Your task to perform on an android device: delete a single message in the gmail app Image 0: 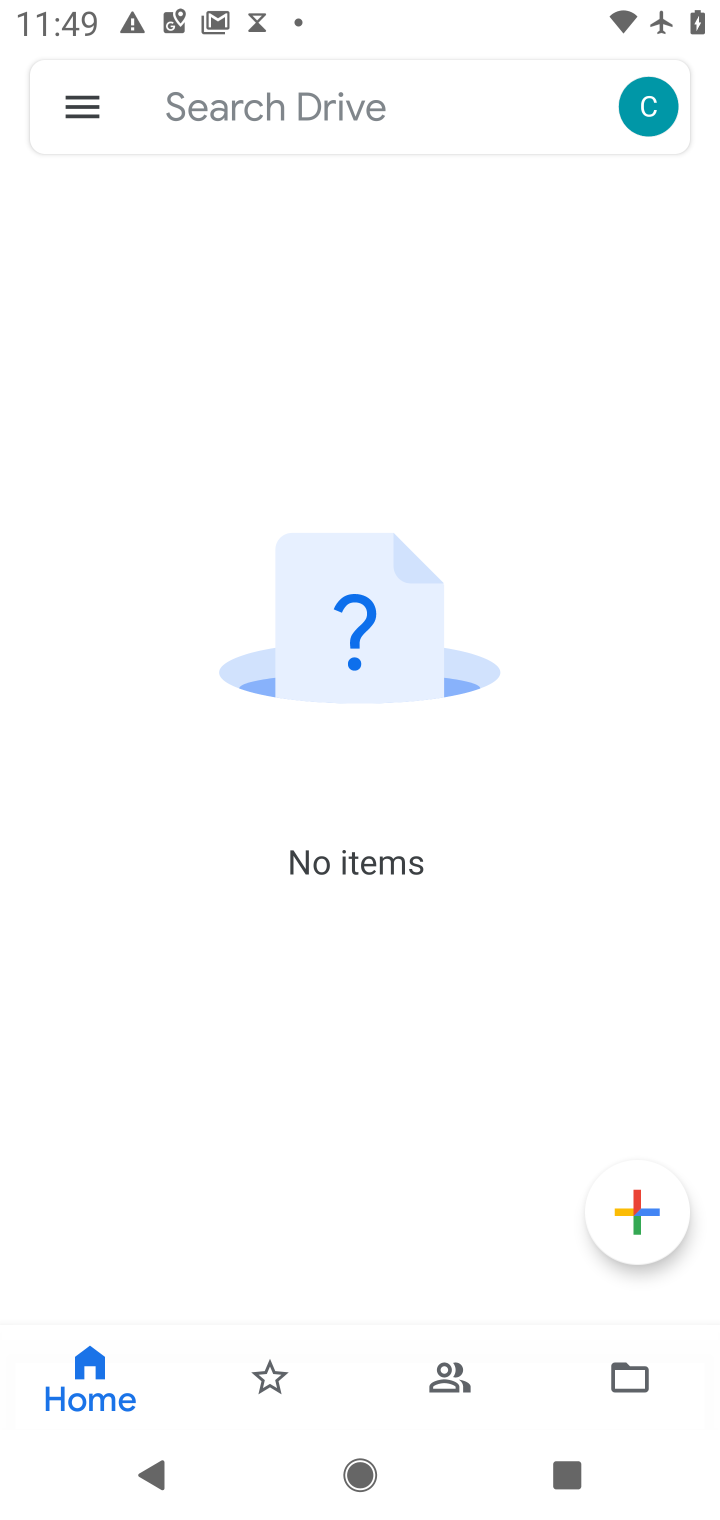
Step 0: press home button
Your task to perform on an android device: delete a single message in the gmail app Image 1: 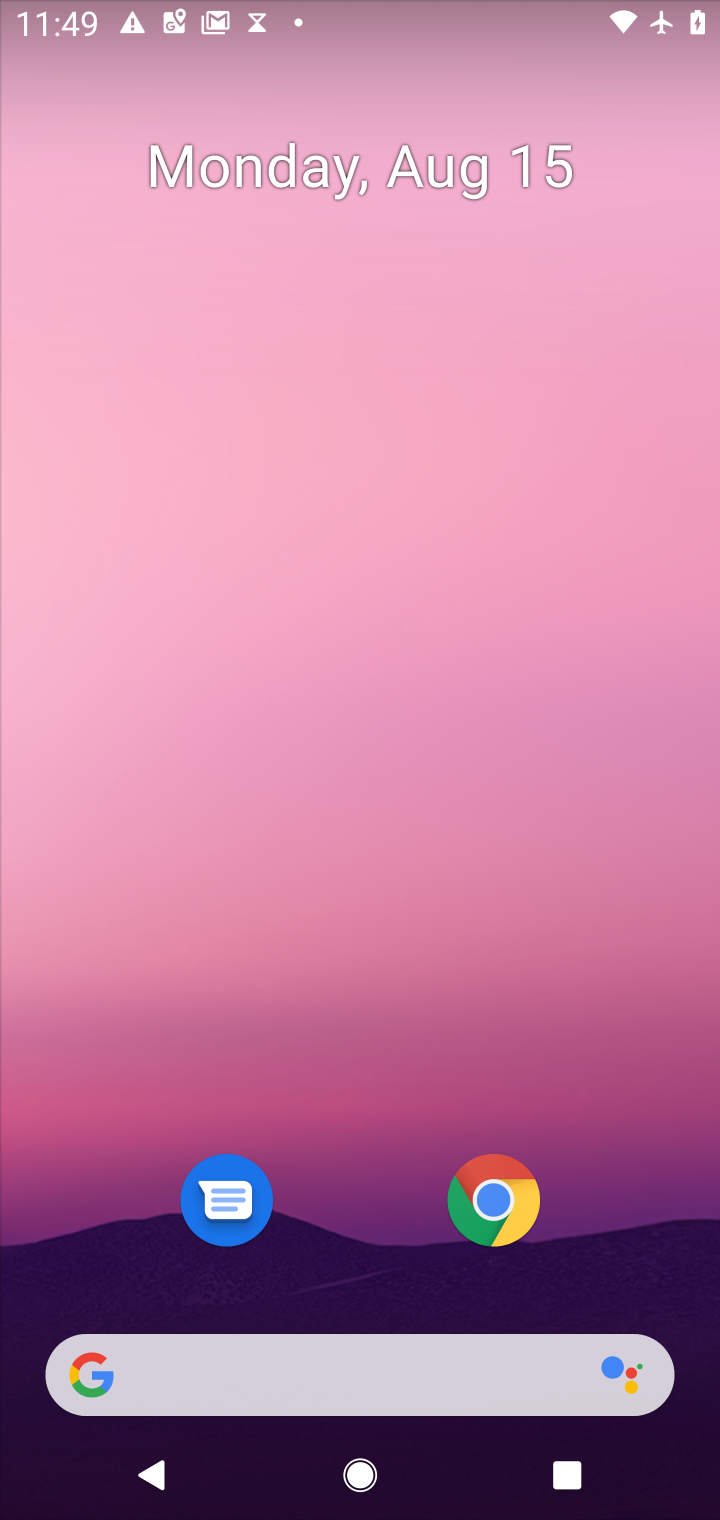
Step 1: drag from (312, 1062) to (299, 605)
Your task to perform on an android device: delete a single message in the gmail app Image 2: 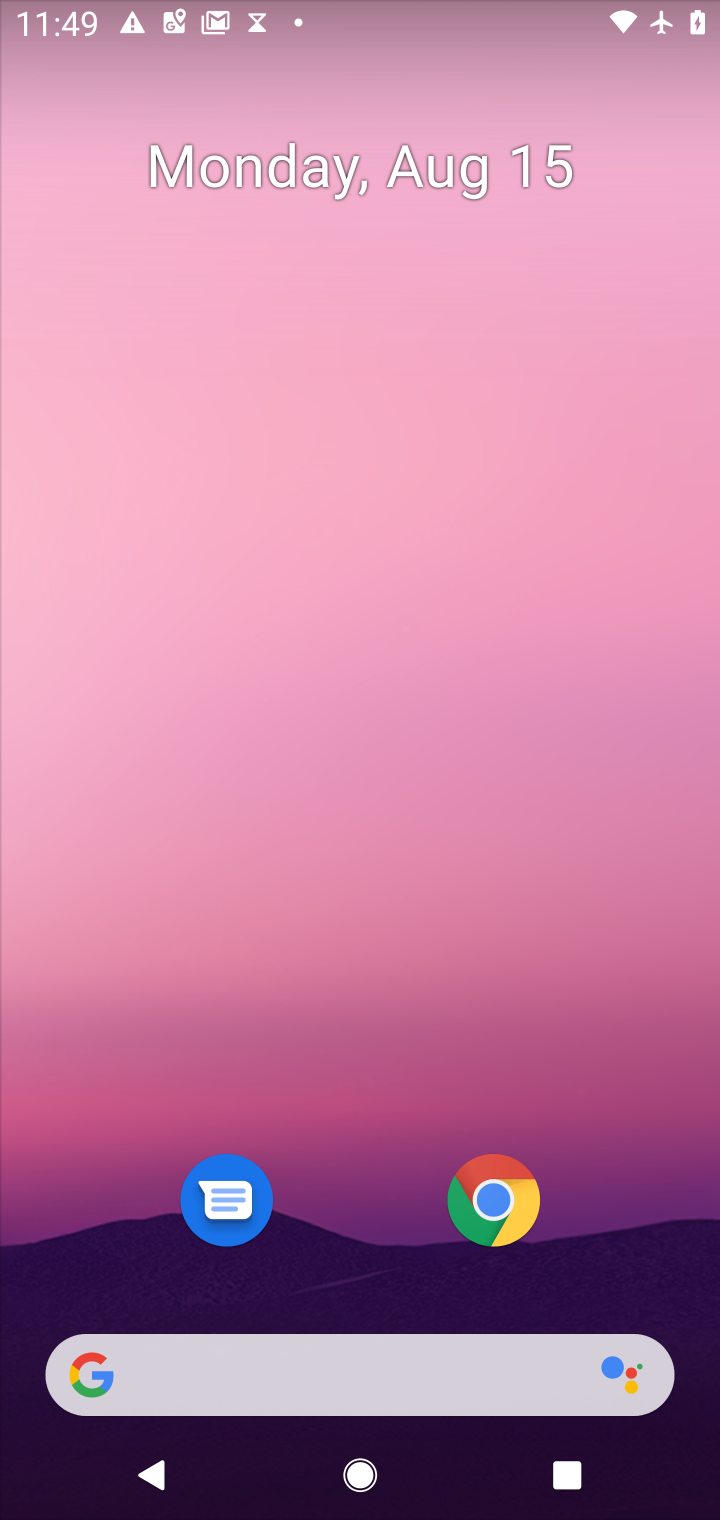
Step 2: drag from (383, 1204) to (389, 529)
Your task to perform on an android device: delete a single message in the gmail app Image 3: 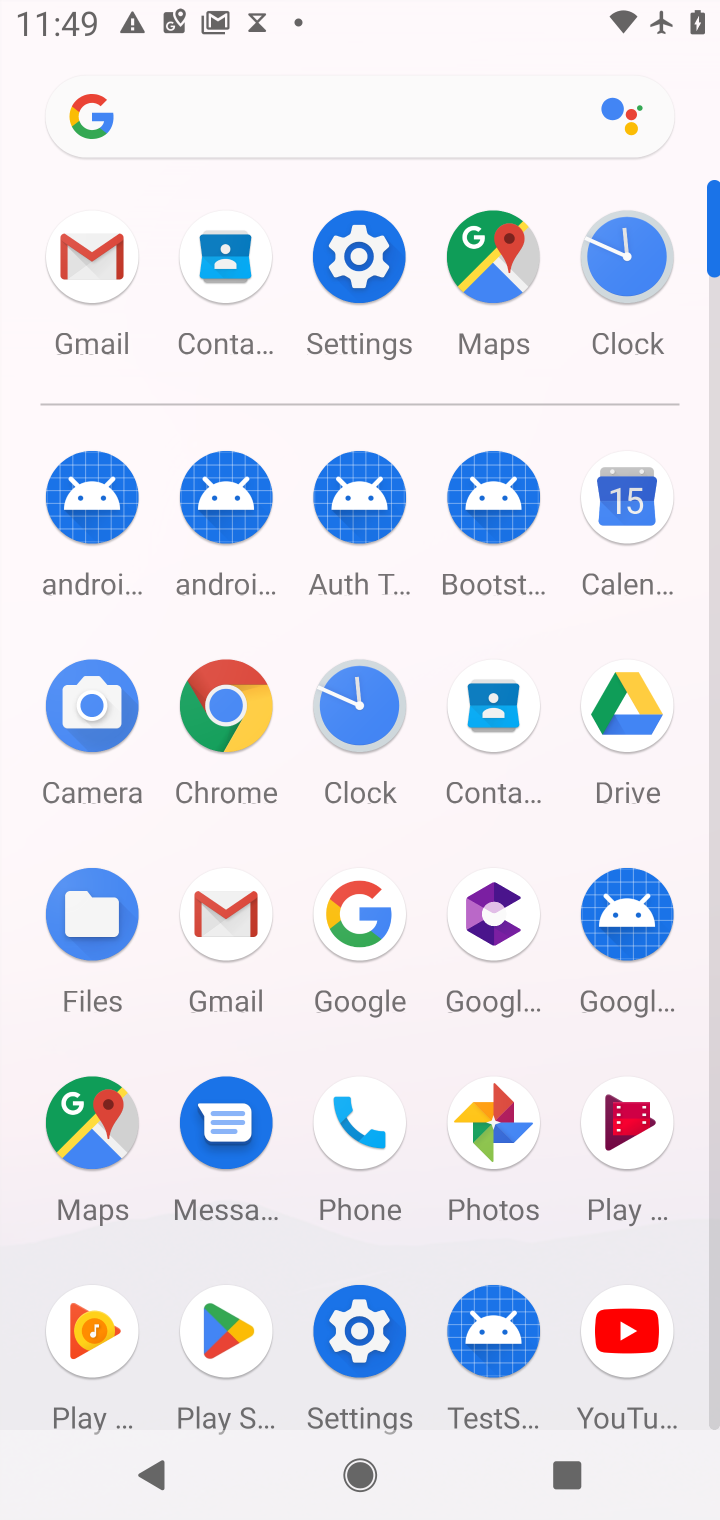
Step 3: click (85, 281)
Your task to perform on an android device: delete a single message in the gmail app Image 4: 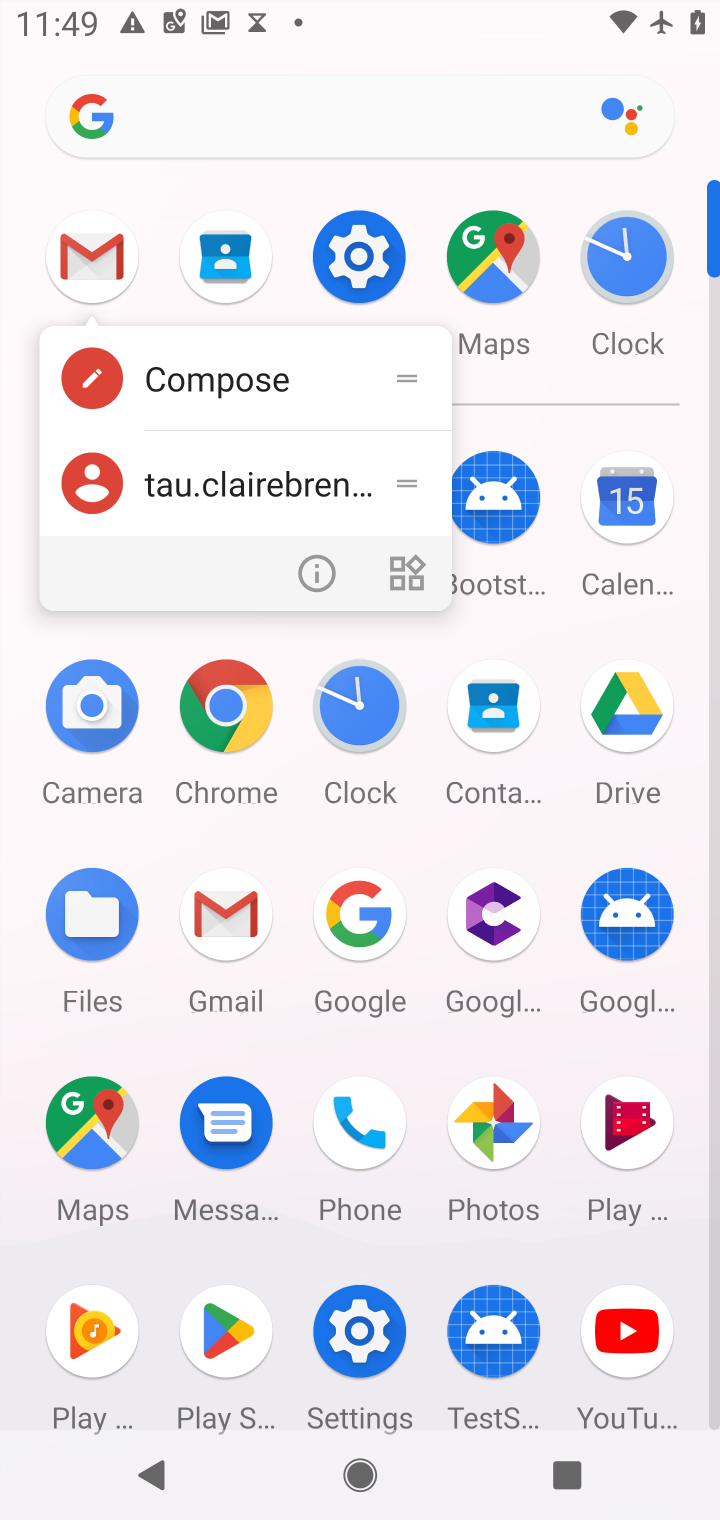
Step 4: click (93, 290)
Your task to perform on an android device: delete a single message in the gmail app Image 5: 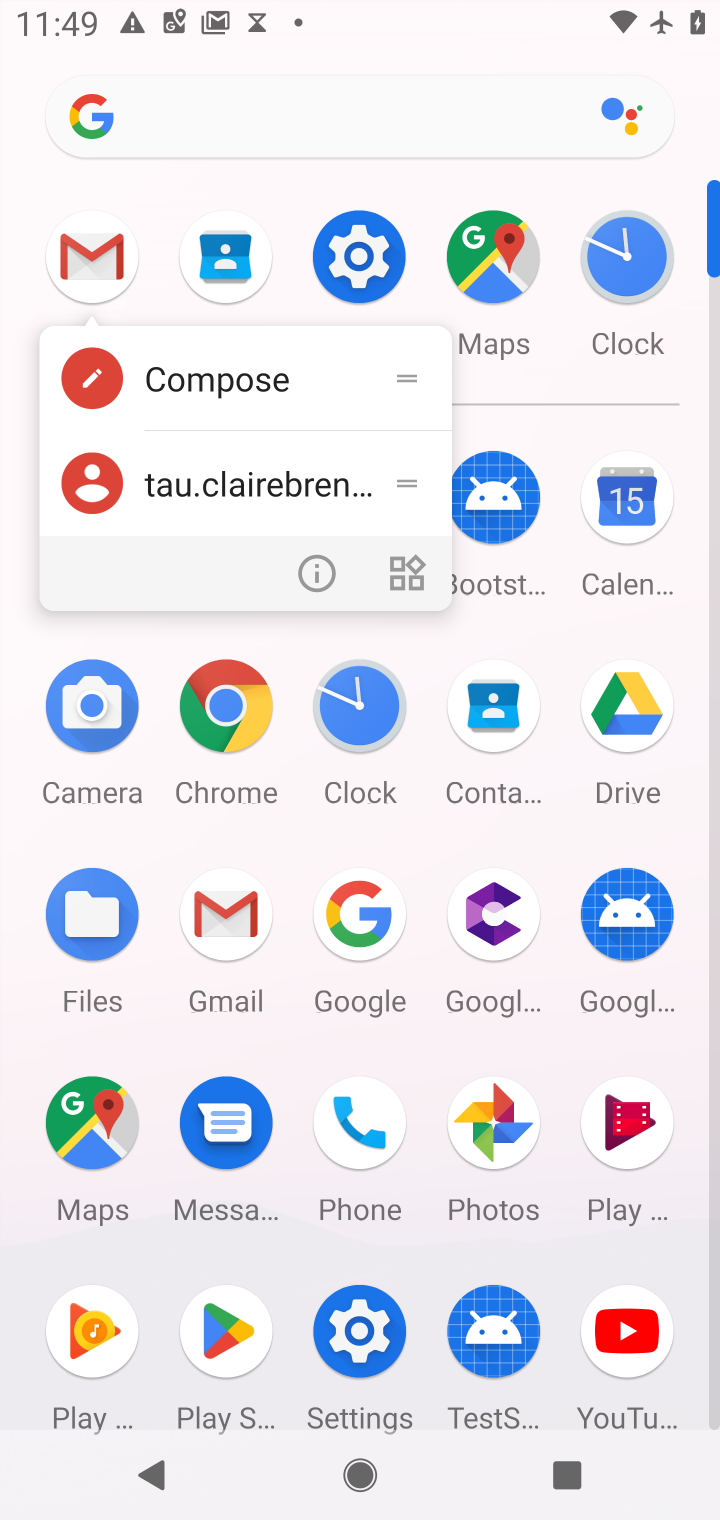
Step 5: click (94, 294)
Your task to perform on an android device: delete a single message in the gmail app Image 6: 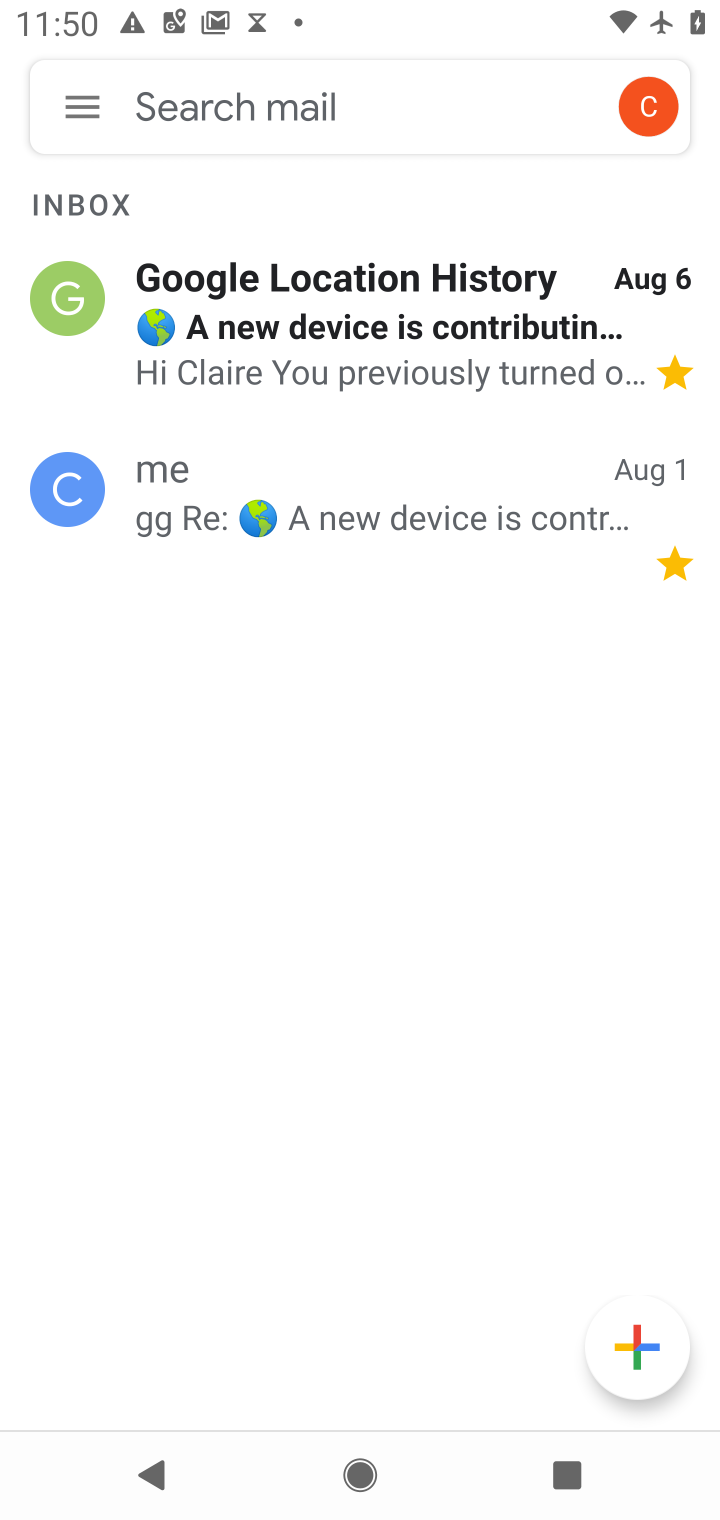
Step 6: click (507, 343)
Your task to perform on an android device: delete a single message in the gmail app Image 7: 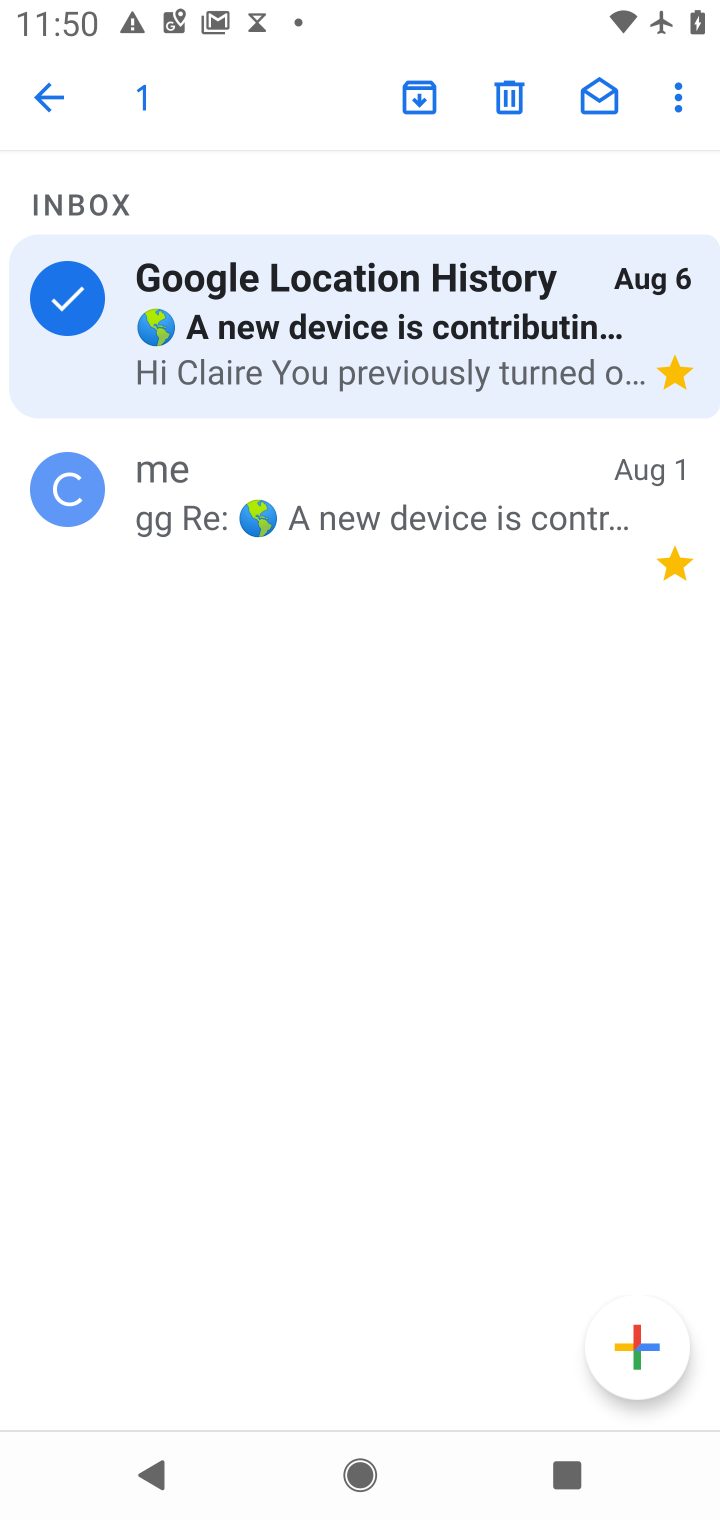
Step 7: click (513, 120)
Your task to perform on an android device: delete a single message in the gmail app Image 8: 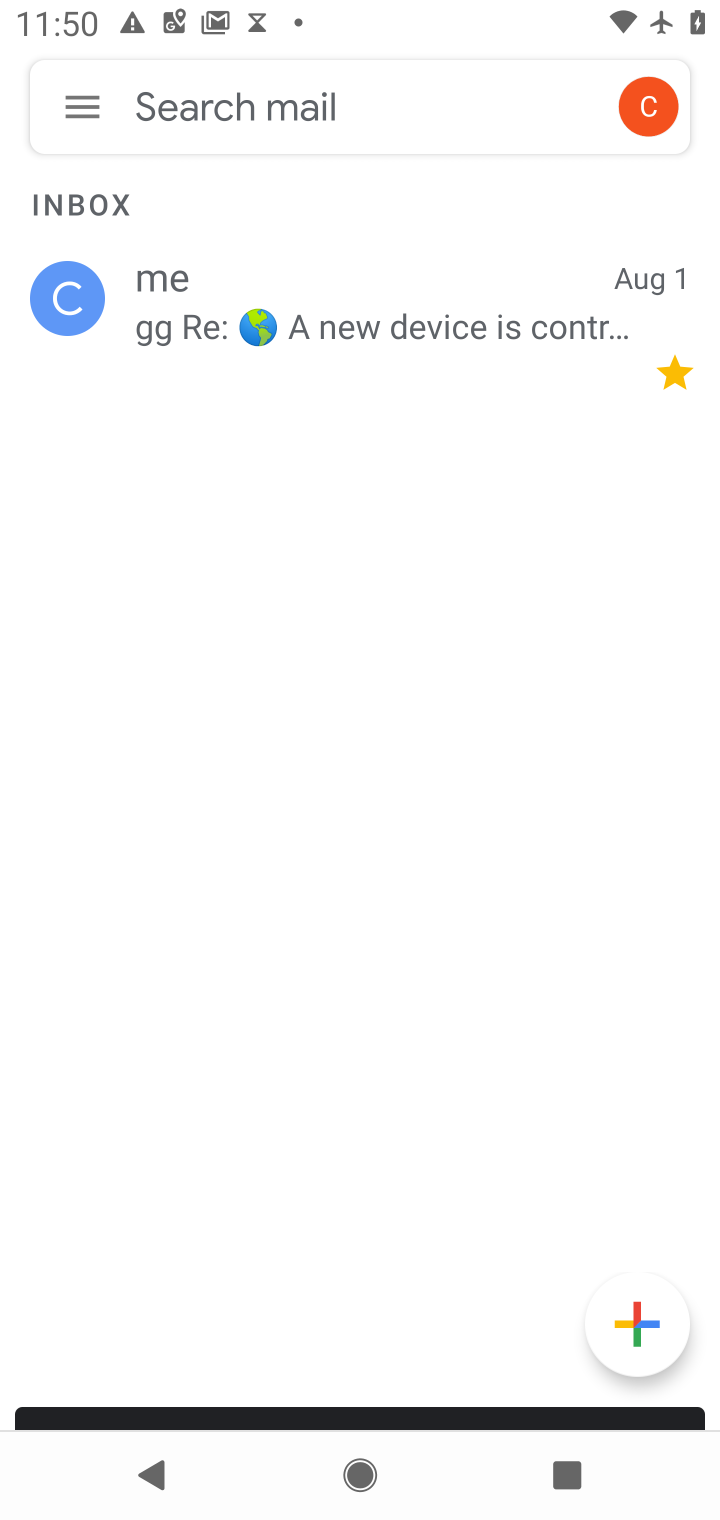
Step 8: task complete